Your task to perform on an android device: toggle airplane mode Image 0: 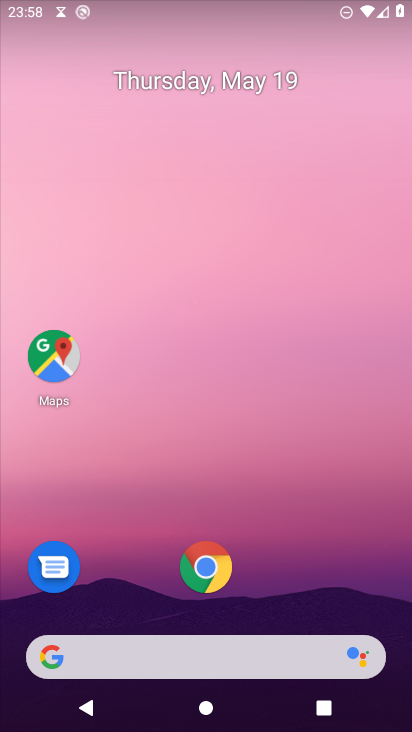
Step 0: drag from (279, 9) to (300, 512)
Your task to perform on an android device: toggle airplane mode Image 1: 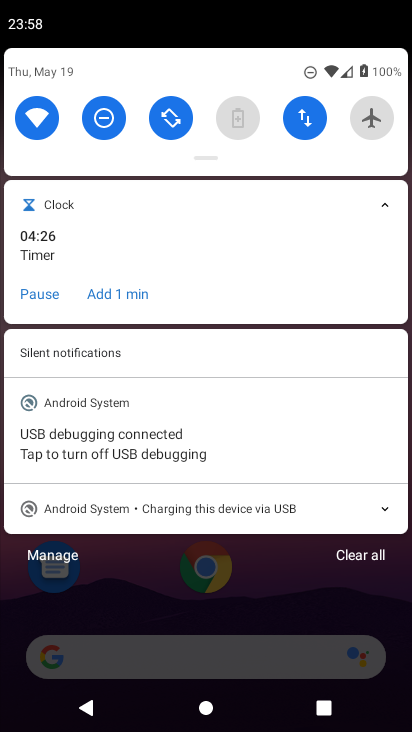
Step 1: click (375, 117)
Your task to perform on an android device: toggle airplane mode Image 2: 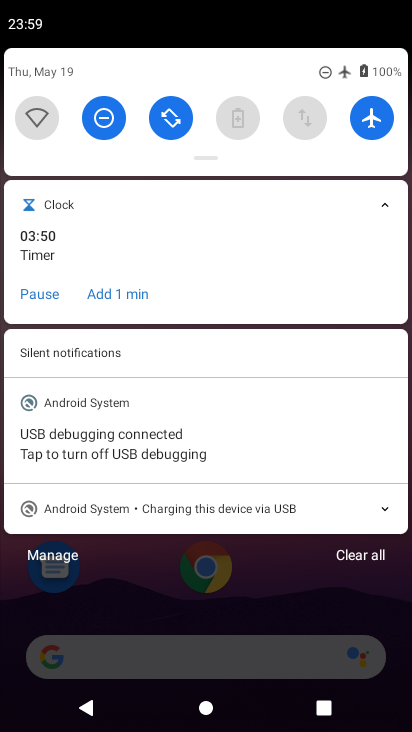
Step 2: click (366, 114)
Your task to perform on an android device: toggle airplane mode Image 3: 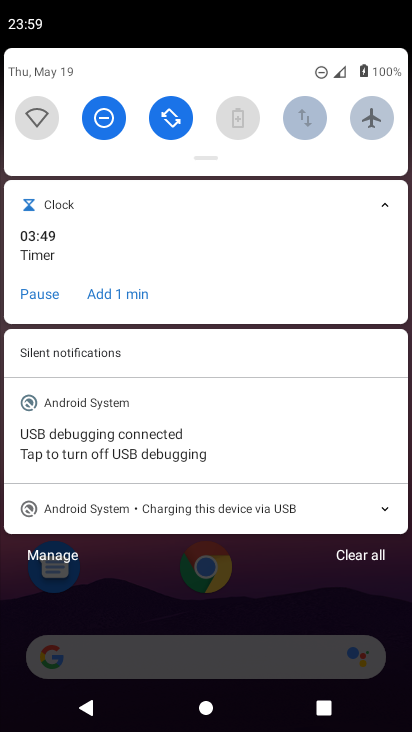
Step 3: task complete